Your task to perform on an android device: delete a single message in the gmail app Image 0: 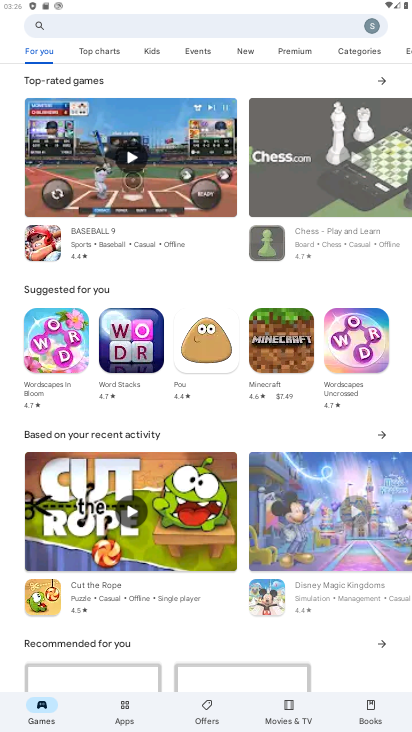
Step 0: press home button
Your task to perform on an android device: delete a single message in the gmail app Image 1: 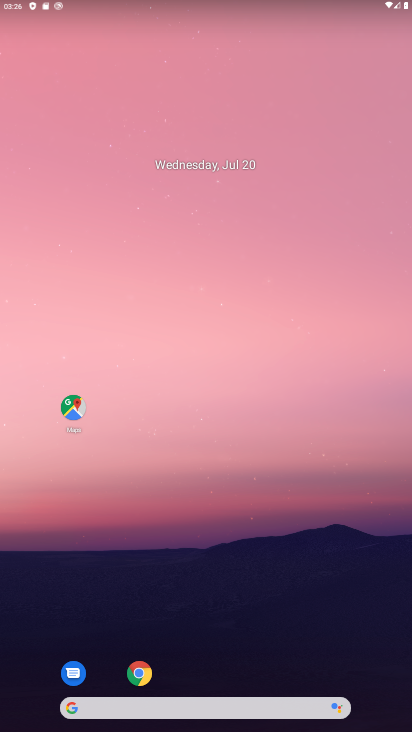
Step 1: drag from (152, 496) to (188, 178)
Your task to perform on an android device: delete a single message in the gmail app Image 2: 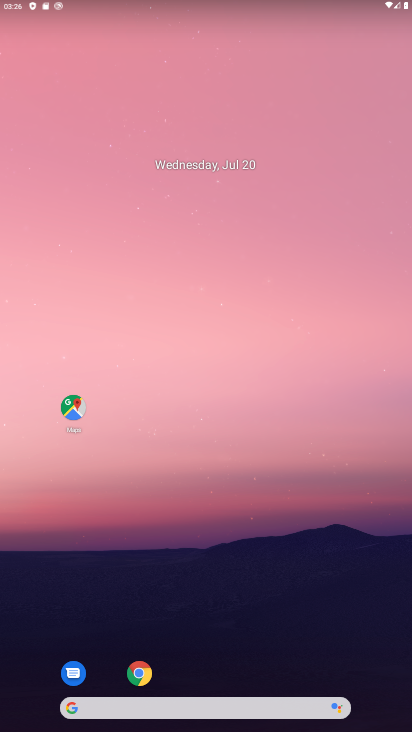
Step 2: drag from (262, 665) to (143, 150)
Your task to perform on an android device: delete a single message in the gmail app Image 3: 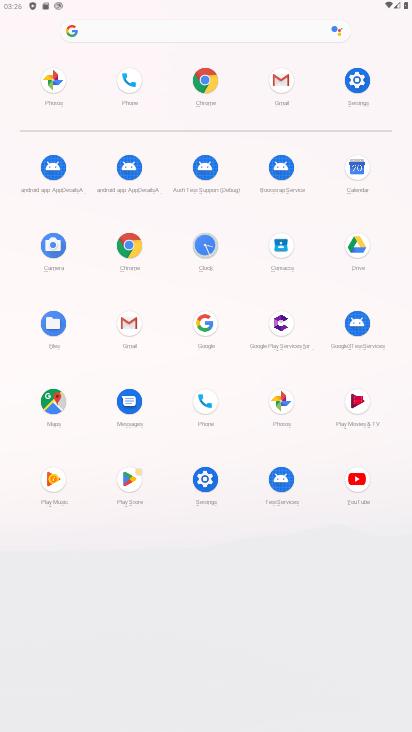
Step 3: click (138, 319)
Your task to perform on an android device: delete a single message in the gmail app Image 4: 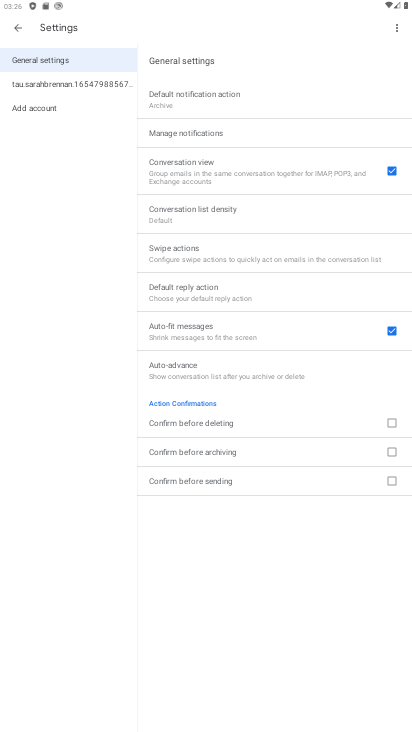
Step 4: click (15, 22)
Your task to perform on an android device: delete a single message in the gmail app Image 5: 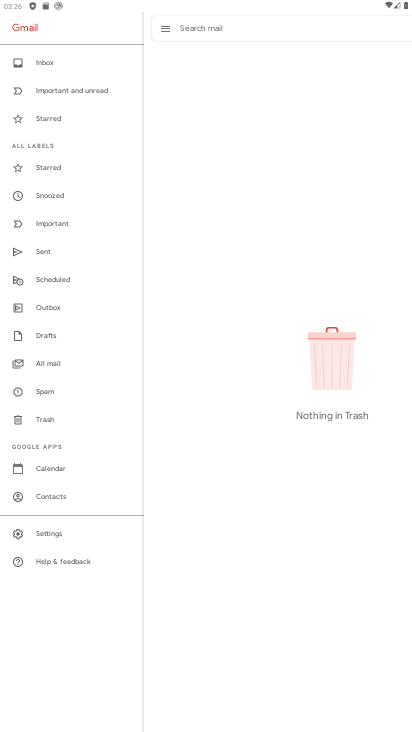
Step 5: click (76, 360)
Your task to perform on an android device: delete a single message in the gmail app Image 6: 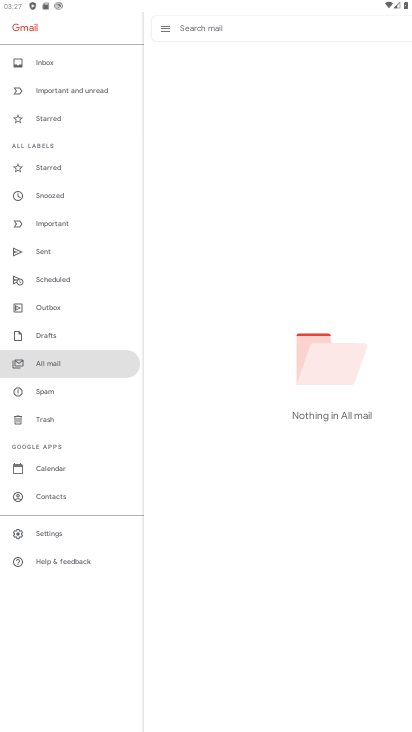
Step 6: task complete